Your task to perform on an android device: delete browsing data in the chrome app Image 0: 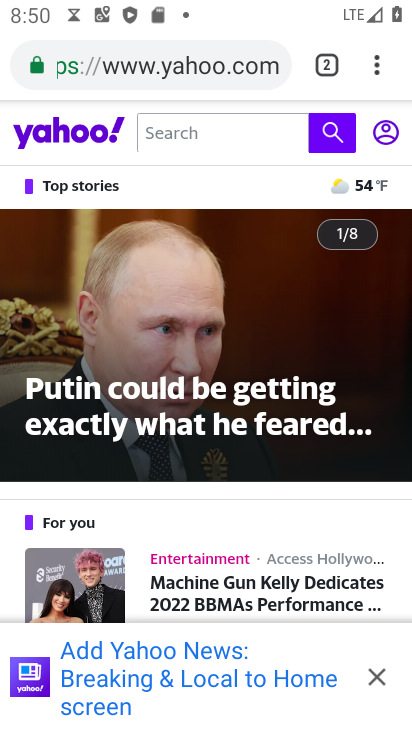
Step 0: drag from (374, 61) to (141, 633)
Your task to perform on an android device: delete browsing data in the chrome app Image 1: 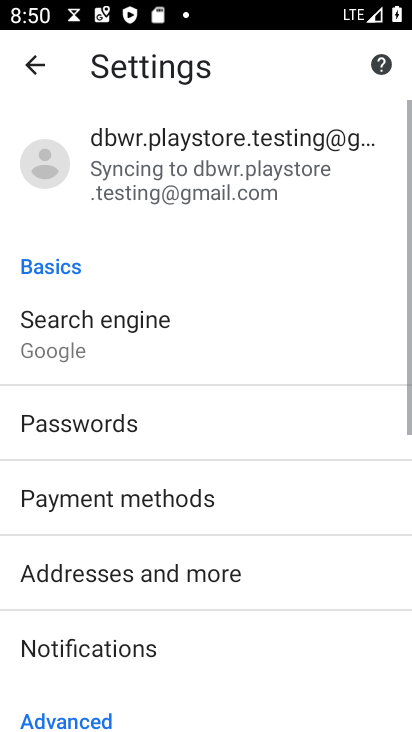
Step 1: click (144, 626)
Your task to perform on an android device: delete browsing data in the chrome app Image 2: 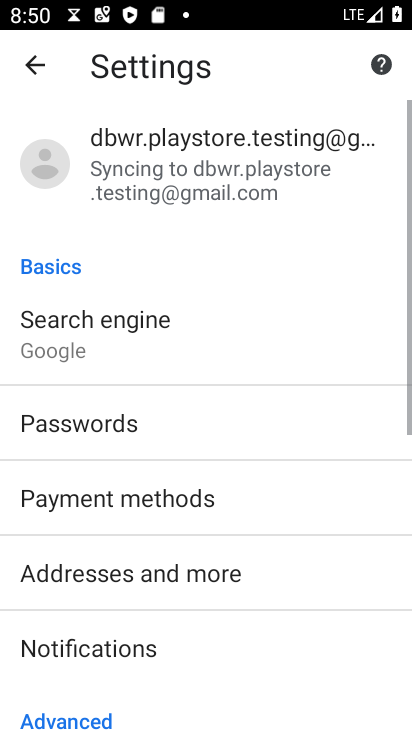
Step 2: click (144, 626)
Your task to perform on an android device: delete browsing data in the chrome app Image 3: 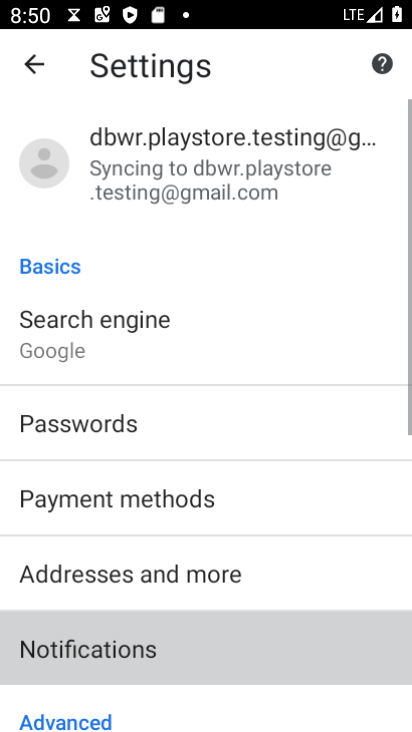
Step 3: click (144, 626)
Your task to perform on an android device: delete browsing data in the chrome app Image 4: 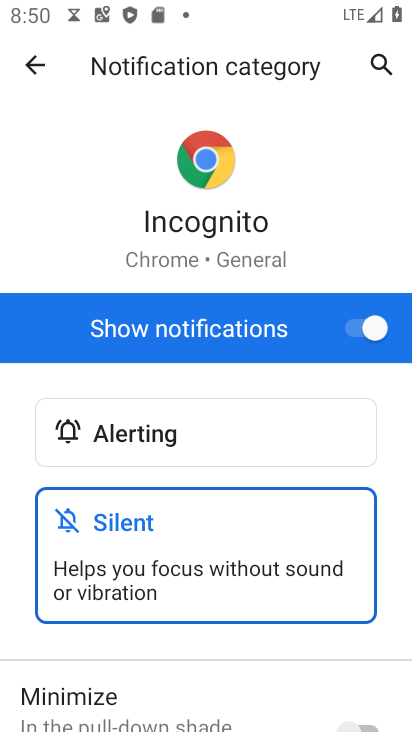
Step 4: click (169, 193)
Your task to perform on an android device: delete browsing data in the chrome app Image 5: 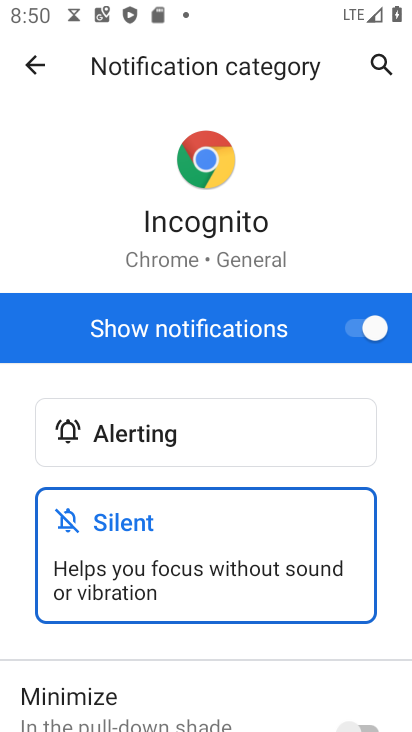
Step 5: click (33, 72)
Your task to perform on an android device: delete browsing data in the chrome app Image 6: 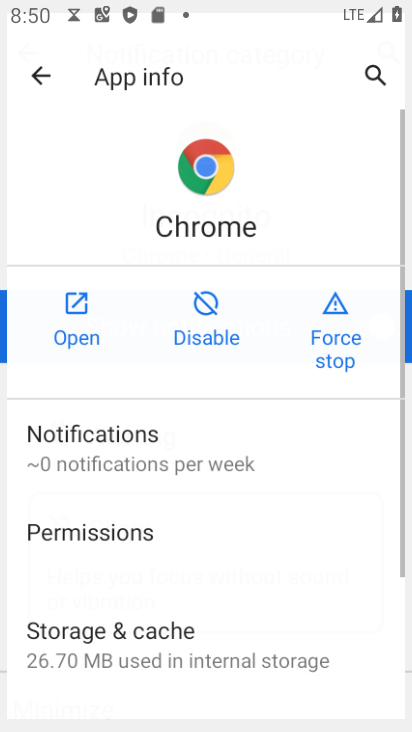
Step 6: click (39, 59)
Your task to perform on an android device: delete browsing data in the chrome app Image 7: 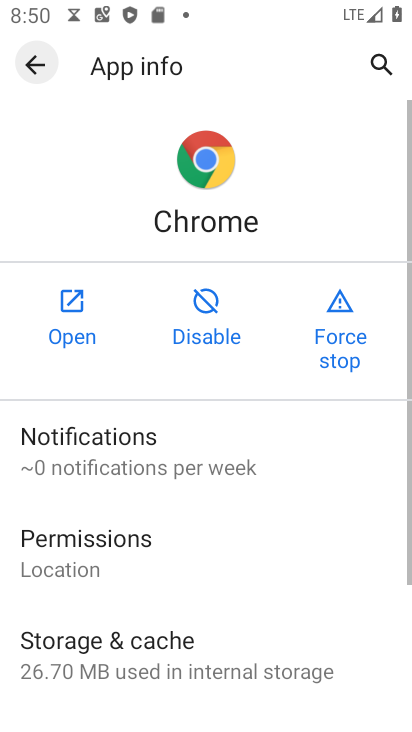
Step 7: click (30, 62)
Your task to perform on an android device: delete browsing data in the chrome app Image 8: 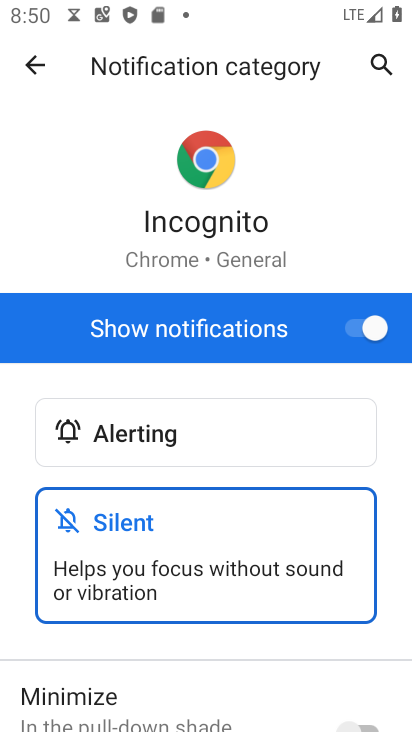
Step 8: click (33, 67)
Your task to perform on an android device: delete browsing data in the chrome app Image 9: 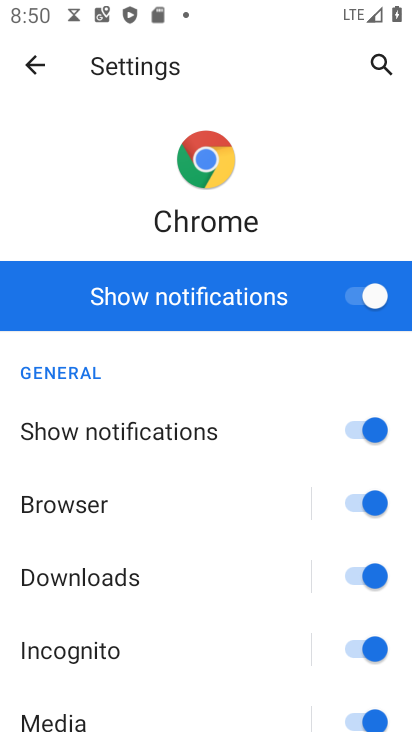
Step 9: click (27, 56)
Your task to perform on an android device: delete browsing data in the chrome app Image 10: 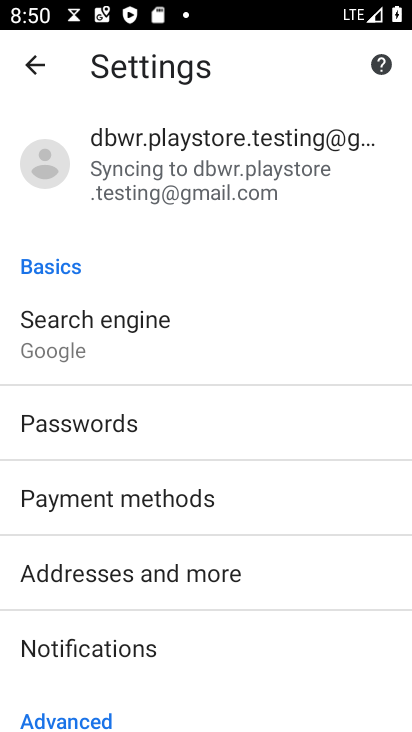
Step 10: drag from (77, 555) to (101, 147)
Your task to perform on an android device: delete browsing data in the chrome app Image 11: 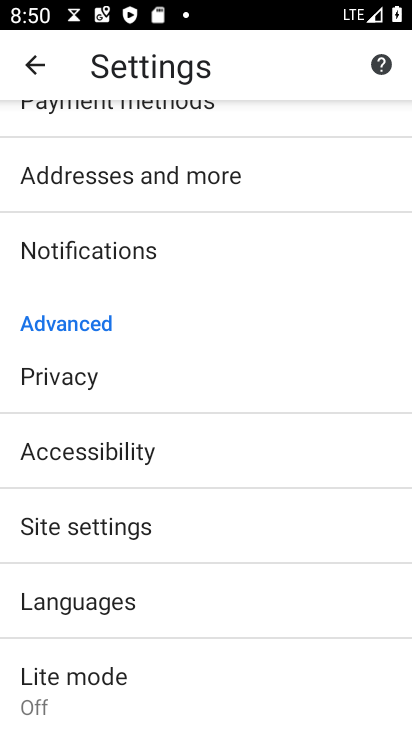
Step 11: click (78, 524)
Your task to perform on an android device: delete browsing data in the chrome app Image 12: 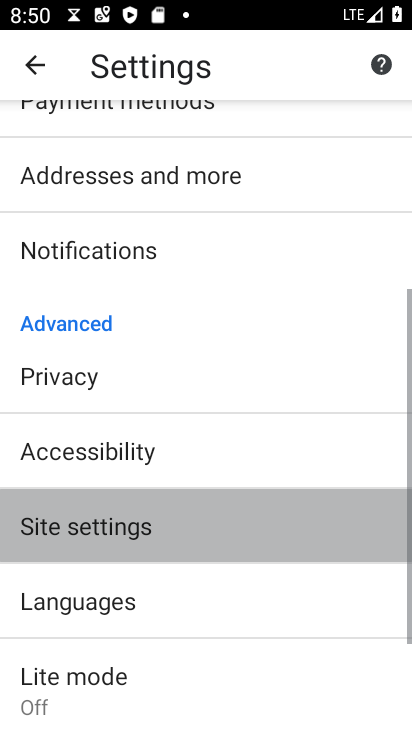
Step 12: click (74, 522)
Your task to perform on an android device: delete browsing data in the chrome app Image 13: 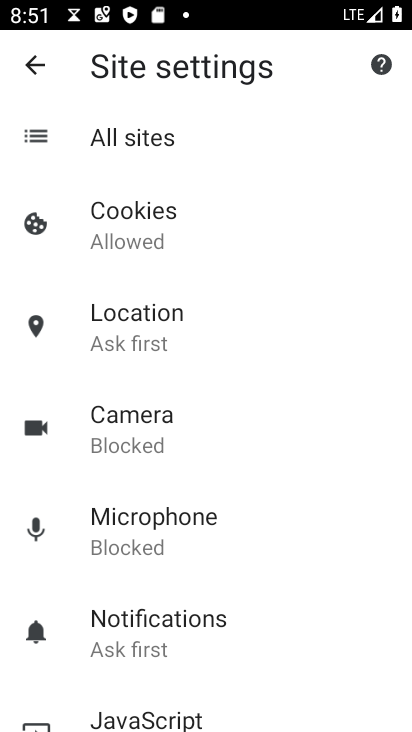
Step 13: click (27, 66)
Your task to perform on an android device: delete browsing data in the chrome app Image 14: 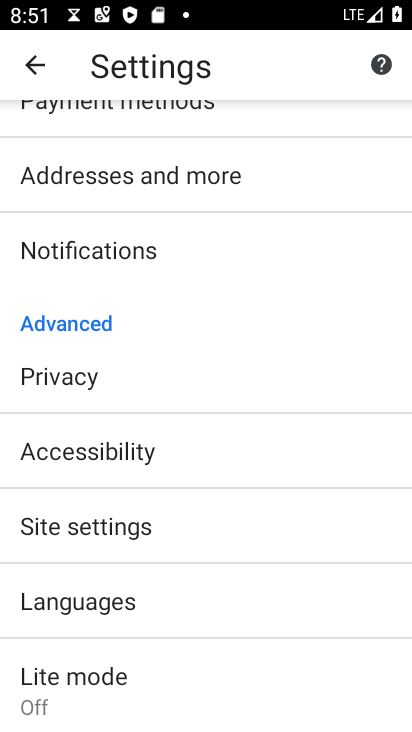
Step 14: click (26, 70)
Your task to perform on an android device: delete browsing data in the chrome app Image 15: 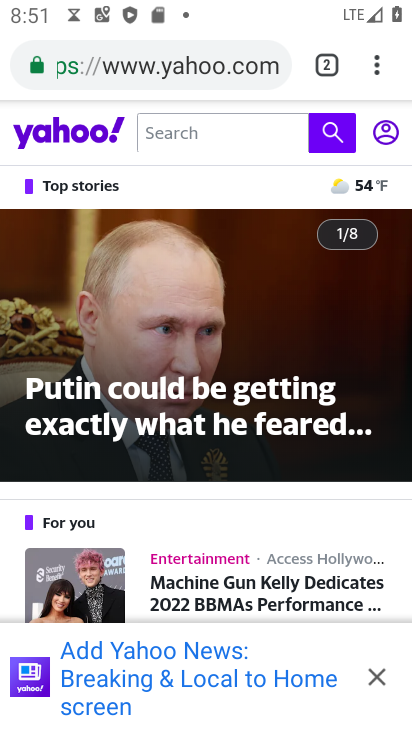
Step 15: click (375, 67)
Your task to perform on an android device: delete browsing data in the chrome app Image 16: 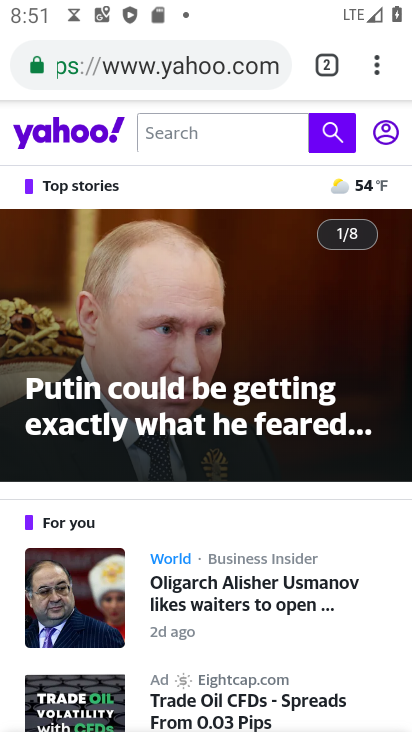
Step 16: click (372, 54)
Your task to perform on an android device: delete browsing data in the chrome app Image 17: 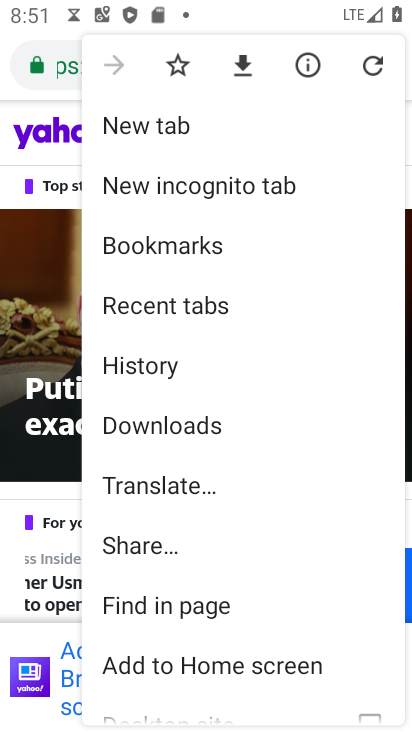
Step 17: click (152, 370)
Your task to perform on an android device: delete browsing data in the chrome app Image 18: 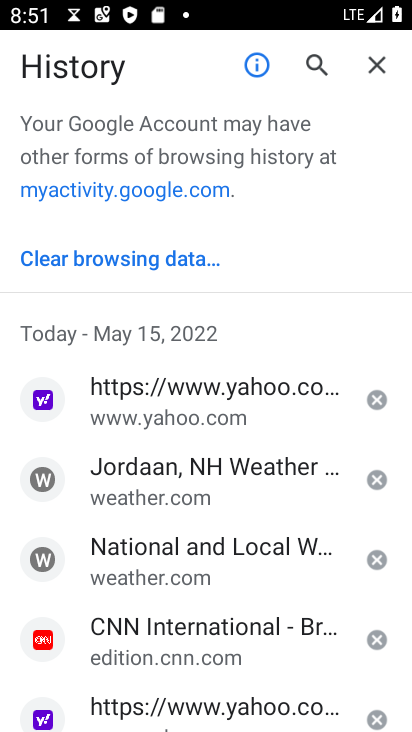
Step 18: click (193, 258)
Your task to perform on an android device: delete browsing data in the chrome app Image 19: 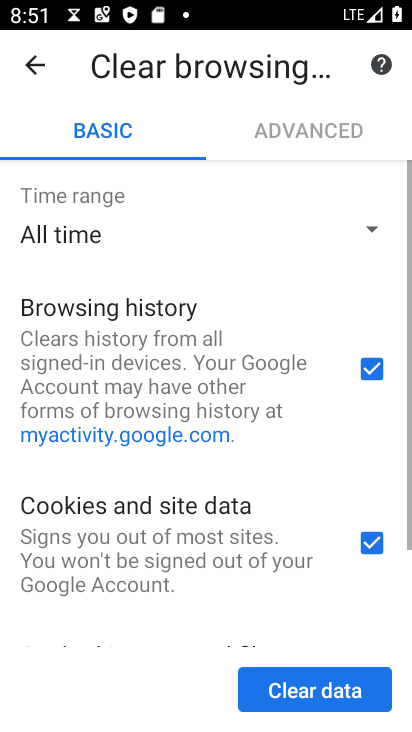
Step 19: click (309, 699)
Your task to perform on an android device: delete browsing data in the chrome app Image 20: 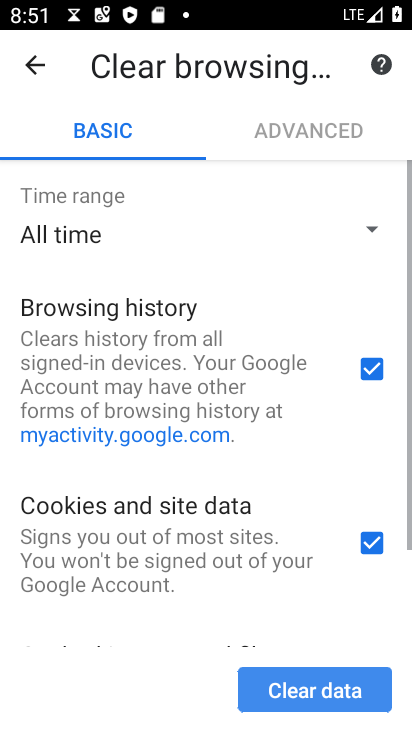
Step 20: click (309, 698)
Your task to perform on an android device: delete browsing data in the chrome app Image 21: 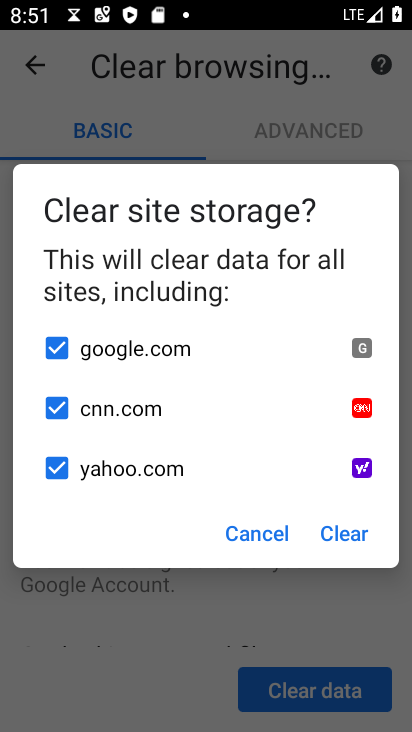
Step 21: click (335, 537)
Your task to perform on an android device: delete browsing data in the chrome app Image 22: 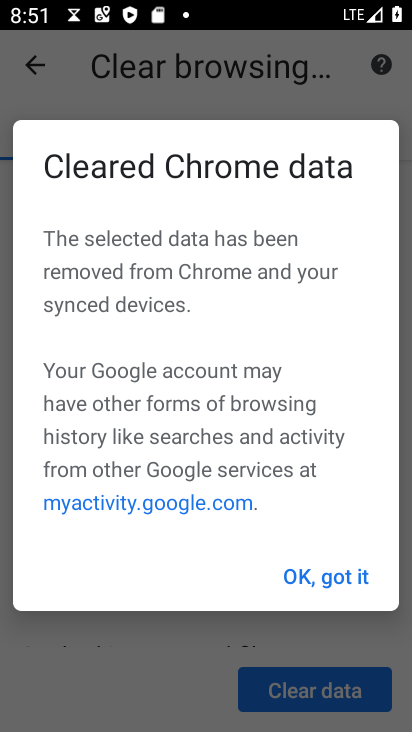
Step 22: click (328, 580)
Your task to perform on an android device: delete browsing data in the chrome app Image 23: 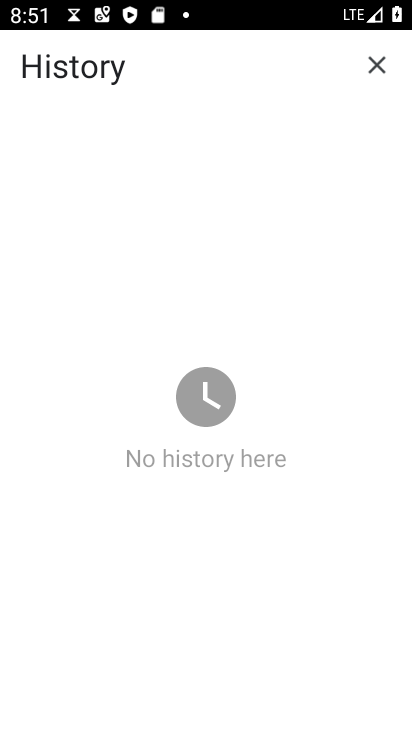
Step 23: task complete